Your task to perform on an android device: Go to Android settings Image 0: 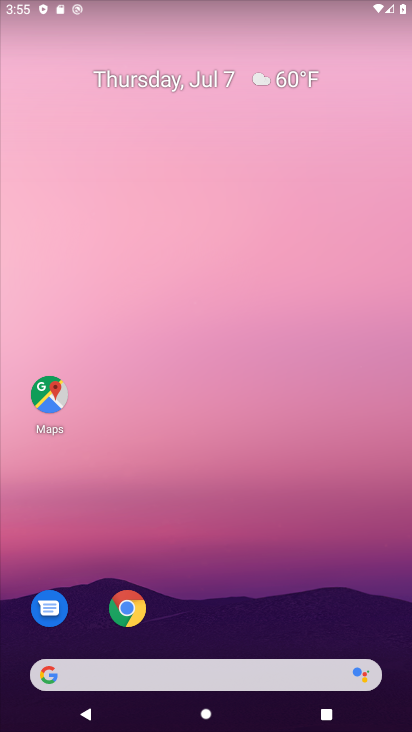
Step 0: drag from (260, 626) to (258, 201)
Your task to perform on an android device: Go to Android settings Image 1: 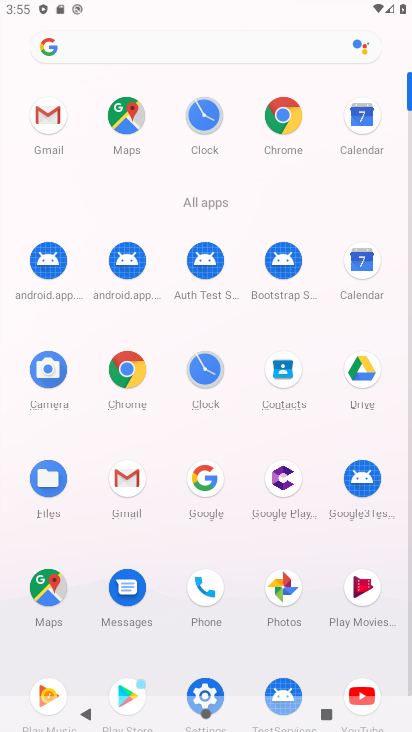
Step 1: click (205, 682)
Your task to perform on an android device: Go to Android settings Image 2: 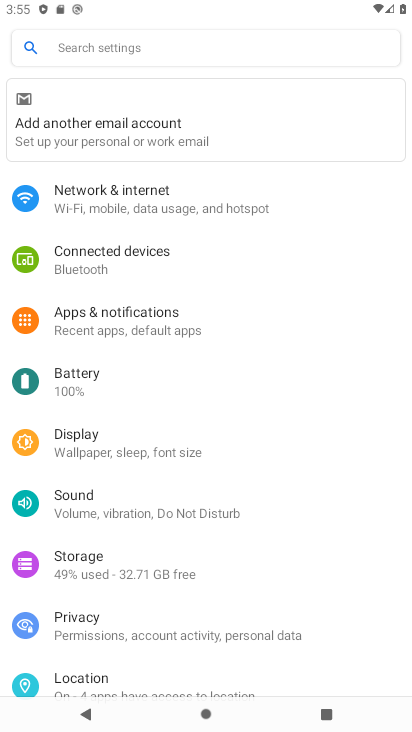
Step 2: task complete